Your task to perform on an android device: empty trash in google photos Image 0: 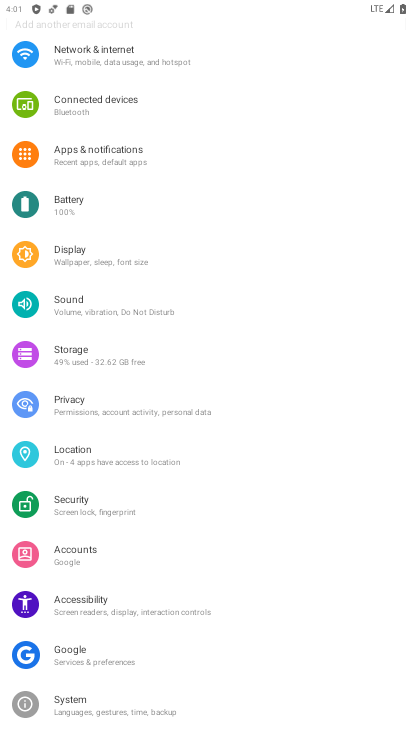
Step 0: drag from (170, 628) to (238, 121)
Your task to perform on an android device: empty trash in google photos Image 1: 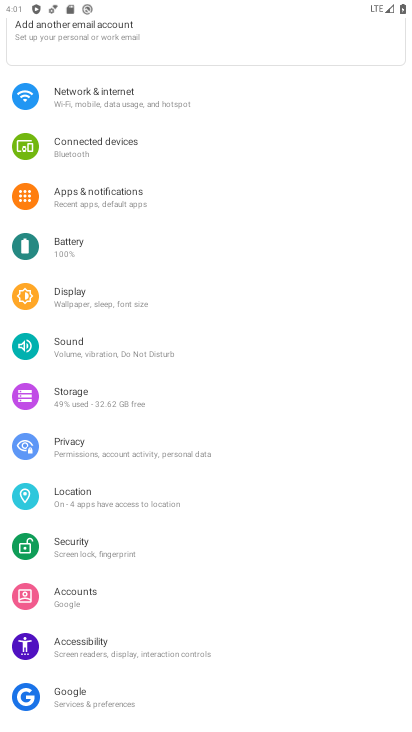
Step 1: press back button
Your task to perform on an android device: empty trash in google photos Image 2: 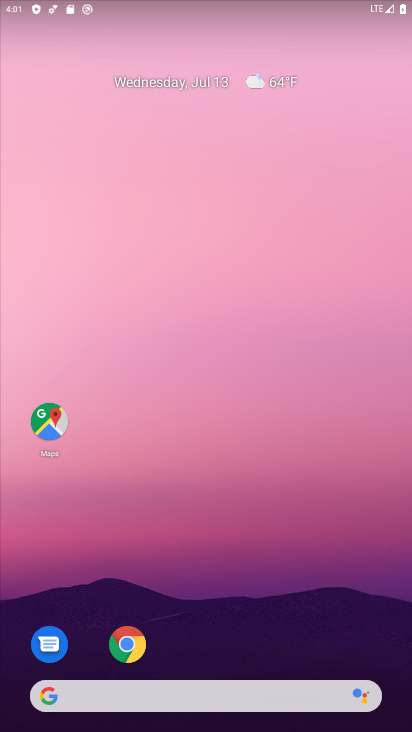
Step 2: drag from (219, 653) to (250, 9)
Your task to perform on an android device: empty trash in google photos Image 3: 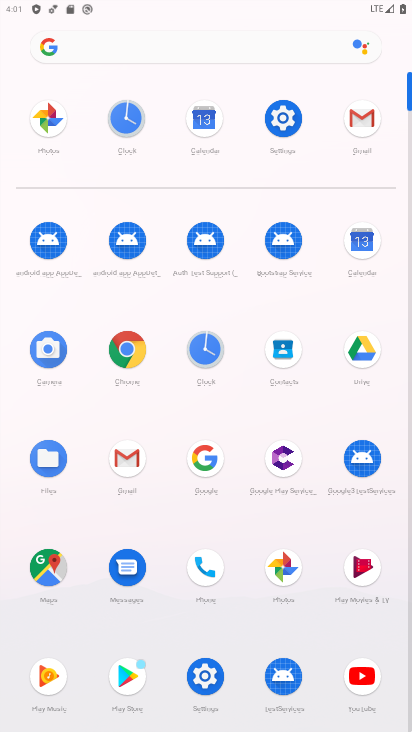
Step 3: click (272, 572)
Your task to perform on an android device: empty trash in google photos Image 4: 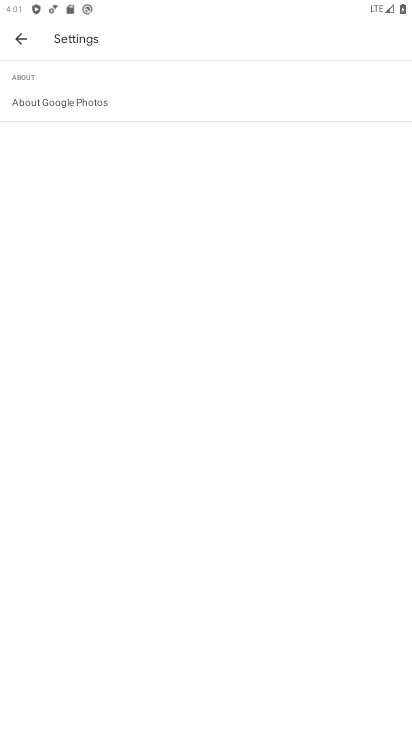
Step 4: click (18, 38)
Your task to perform on an android device: empty trash in google photos Image 5: 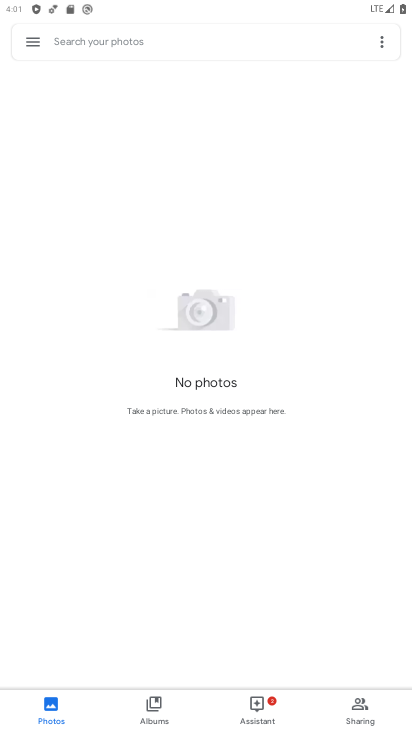
Step 5: click (31, 38)
Your task to perform on an android device: empty trash in google photos Image 6: 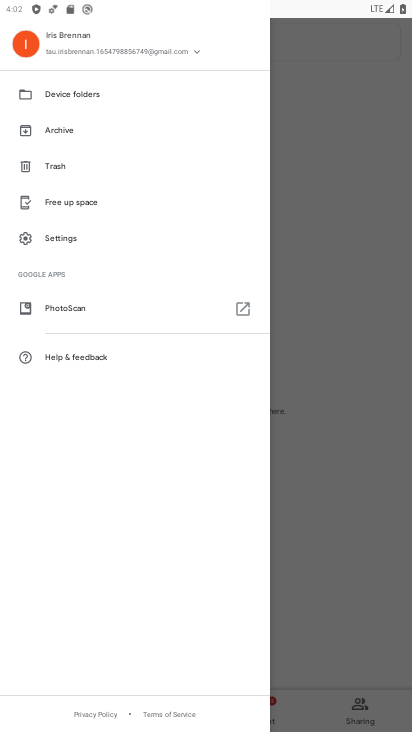
Step 6: click (59, 168)
Your task to perform on an android device: empty trash in google photos Image 7: 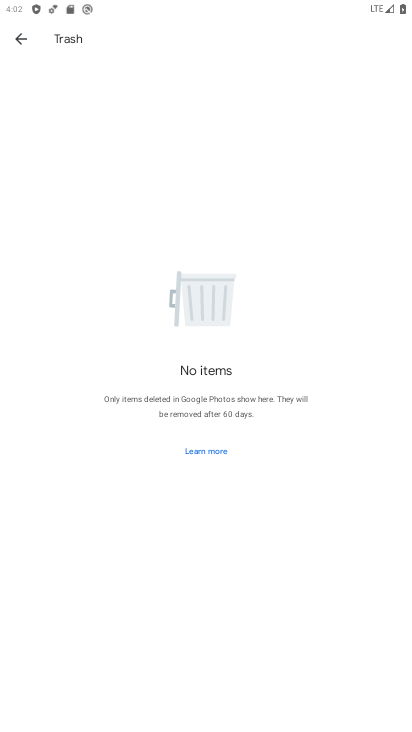
Step 7: task complete